Your task to perform on an android device: Open the web browser Image 0: 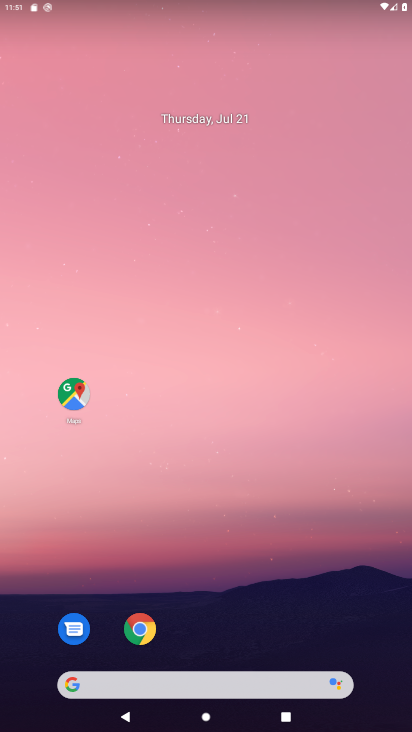
Step 0: drag from (210, 548) to (195, 0)
Your task to perform on an android device: Open the web browser Image 1: 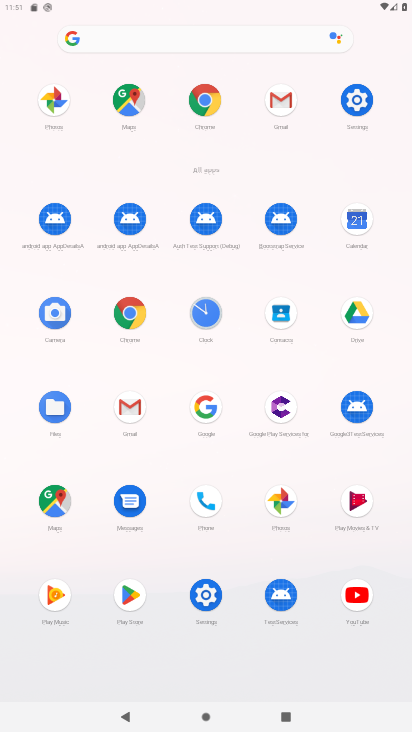
Step 1: click (195, 105)
Your task to perform on an android device: Open the web browser Image 2: 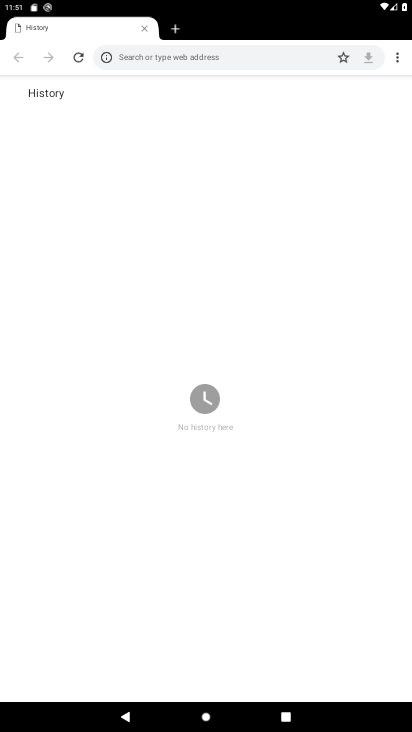
Step 2: task complete